Your task to perform on an android device: Open Chrome and go to settings Image 0: 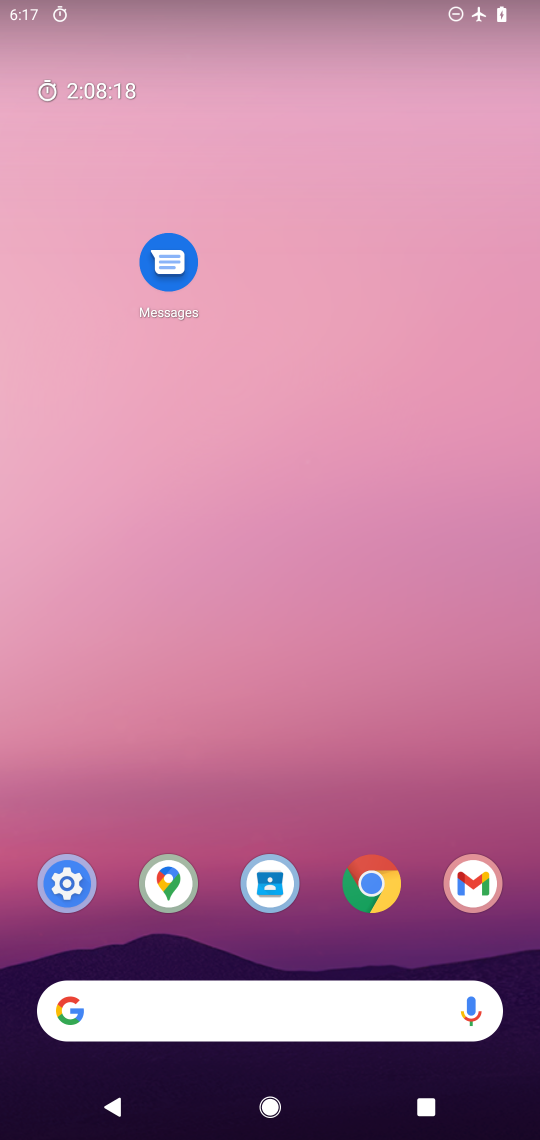
Step 0: click (375, 882)
Your task to perform on an android device: Open Chrome and go to settings Image 1: 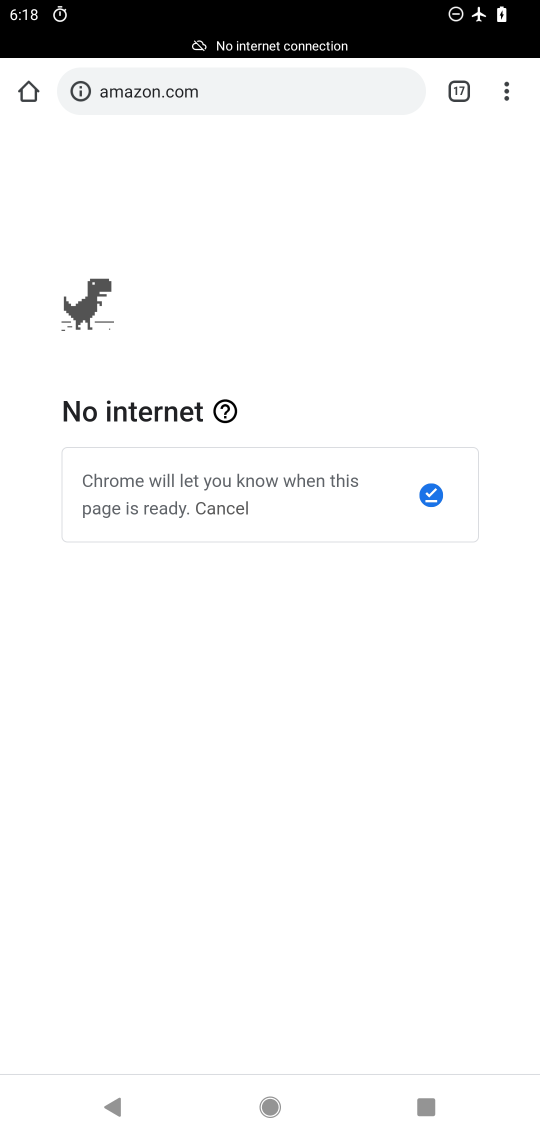
Step 1: click (505, 95)
Your task to perform on an android device: Open Chrome and go to settings Image 2: 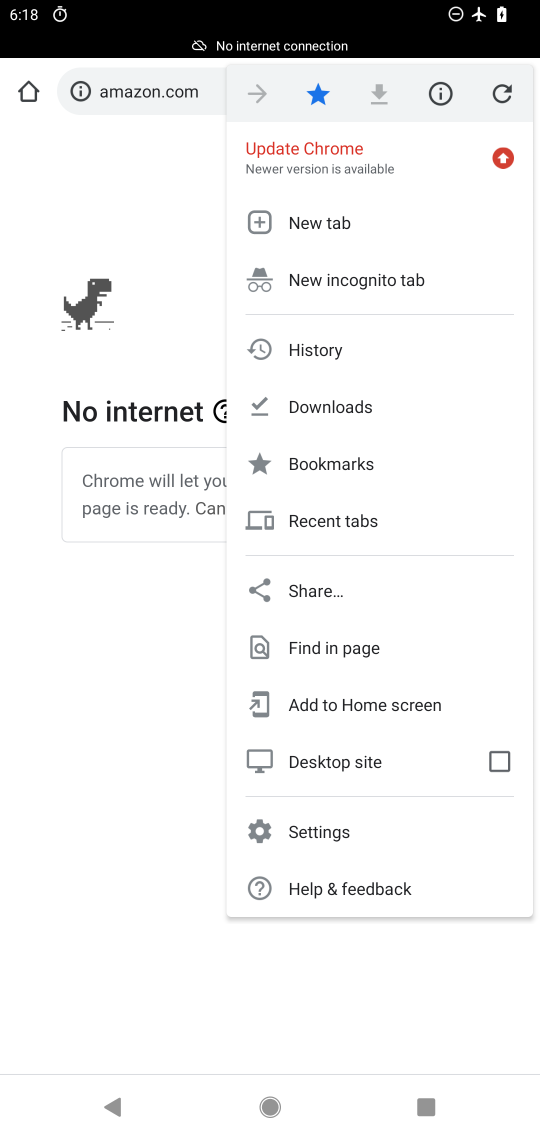
Step 2: click (318, 828)
Your task to perform on an android device: Open Chrome and go to settings Image 3: 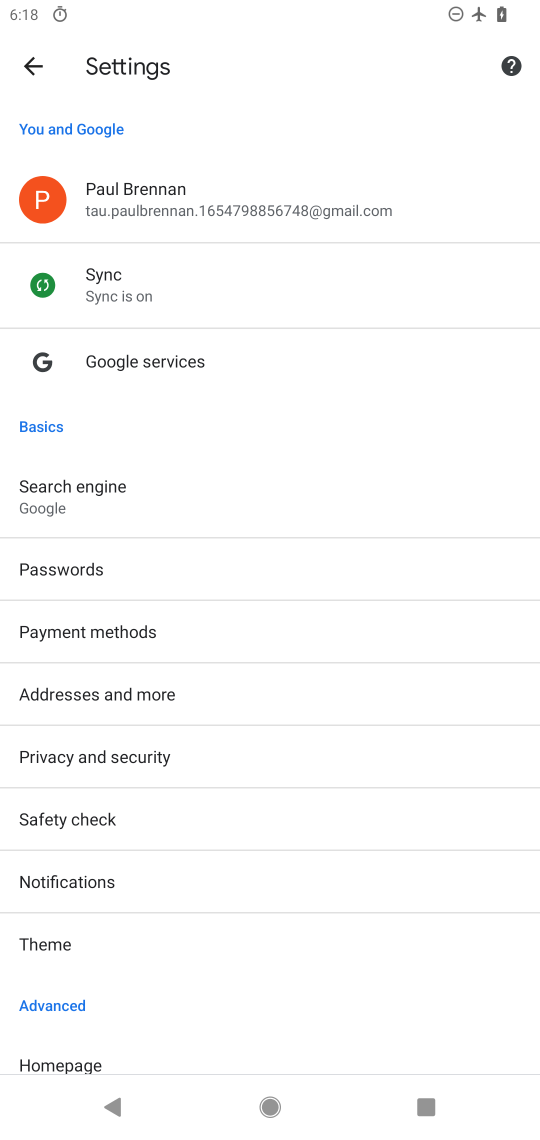
Step 3: task complete